Your task to perform on an android device: Go to ESPN.com Image 0: 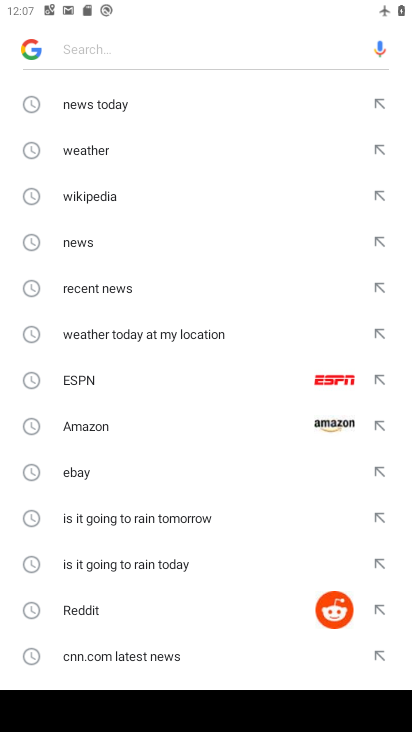
Step 0: press home button
Your task to perform on an android device: Go to ESPN.com Image 1: 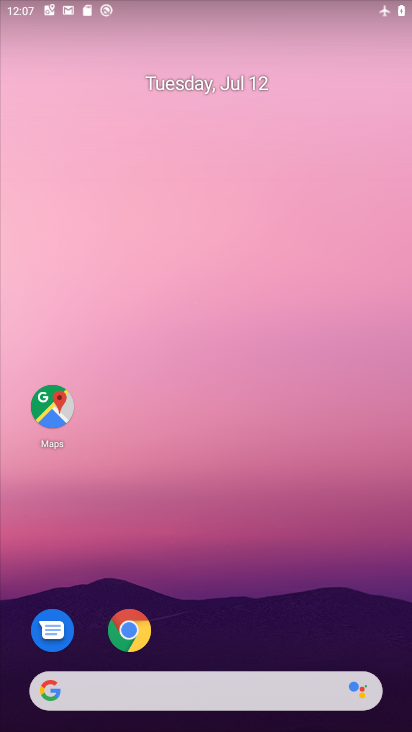
Step 1: drag from (320, 594) to (194, 11)
Your task to perform on an android device: Go to ESPN.com Image 2: 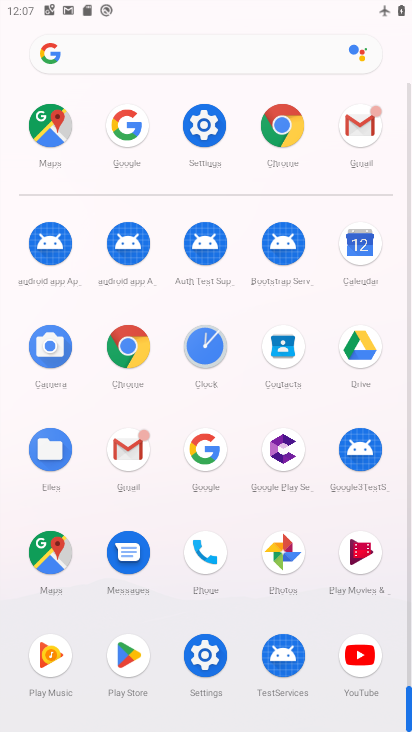
Step 2: click (289, 128)
Your task to perform on an android device: Go to ESPN.com Image 3: 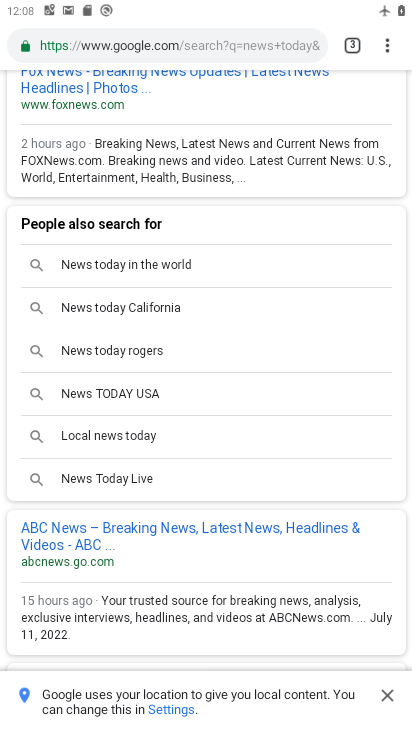
Step 3: drag from (165, 273) to (218, 718)
Your task to perform on an android device: Go to ESPN.com Image 4: 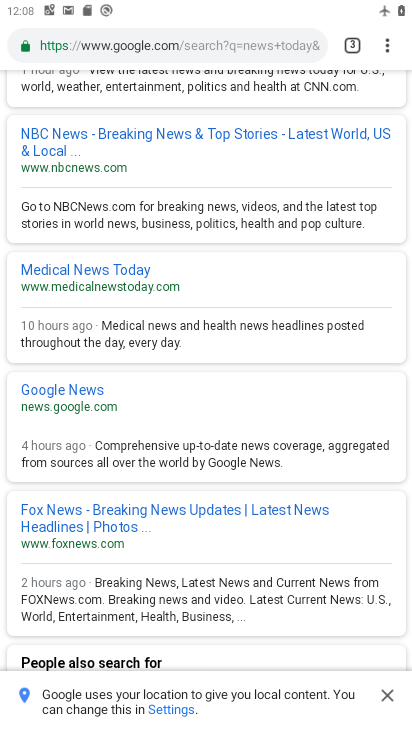
Step 4: drag from (281, 182) to (259, 534)
Your task to perform on an android device: Go to ESPN.com Image 5: 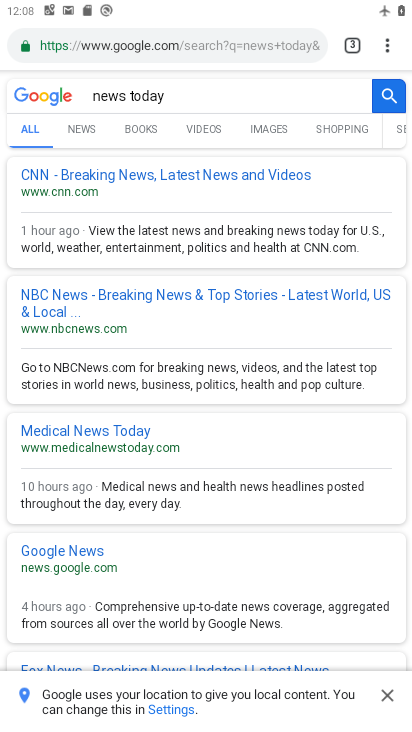
Step 5: click (245, 50)
Your task to perform on an android device: Go to ESPN.com Image 6: 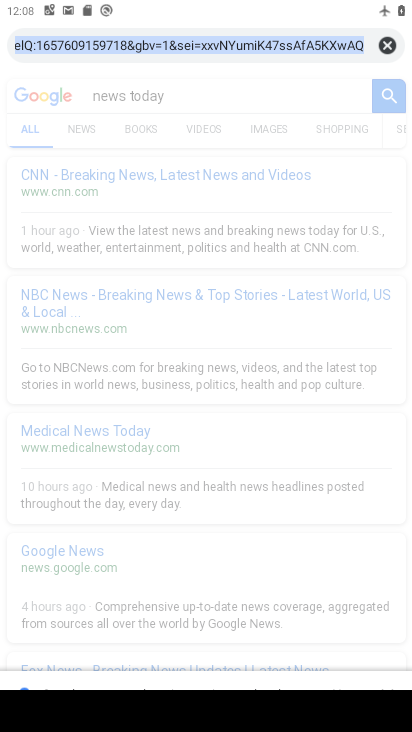
Step 6: type "espn"
Your task to perform on an android device: Go to ESPN.com Image 7: 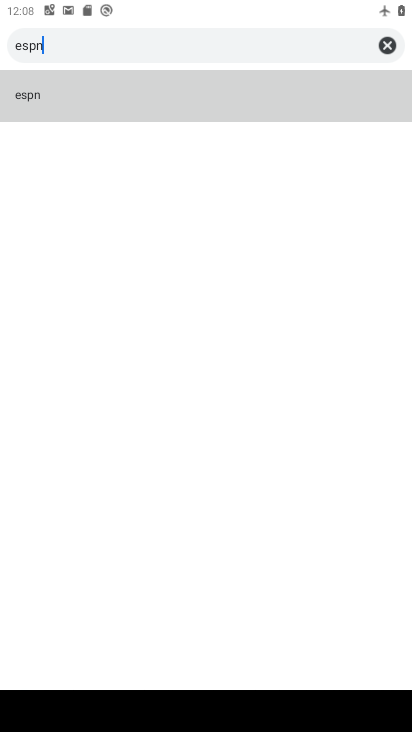
Step 7: task complete